Your task to perform on an android device: Open wifi settings Image 0: 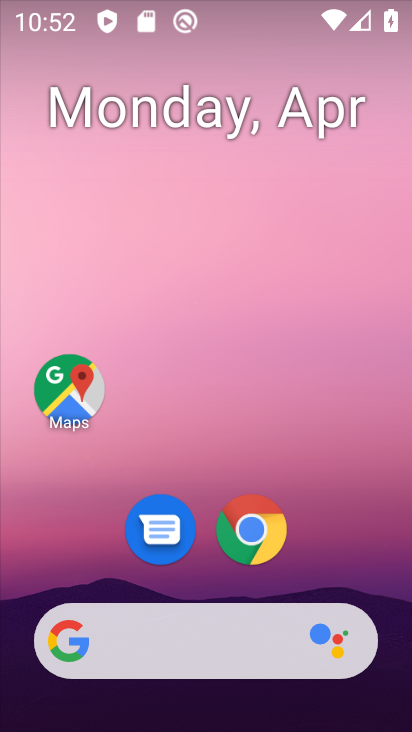
Step 0: press home button
Your task to perform on an android device: Open wifi settings Image 1: 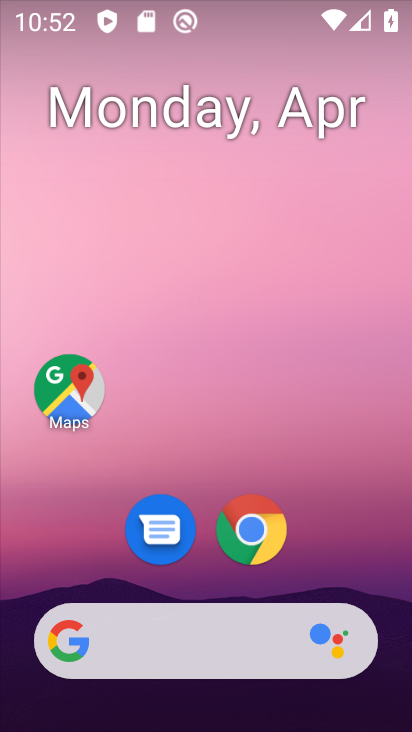
Step 1: drag from (345, 546) to (257, 29)
Your task to perform on an android device: Open wifi settings Image 2: 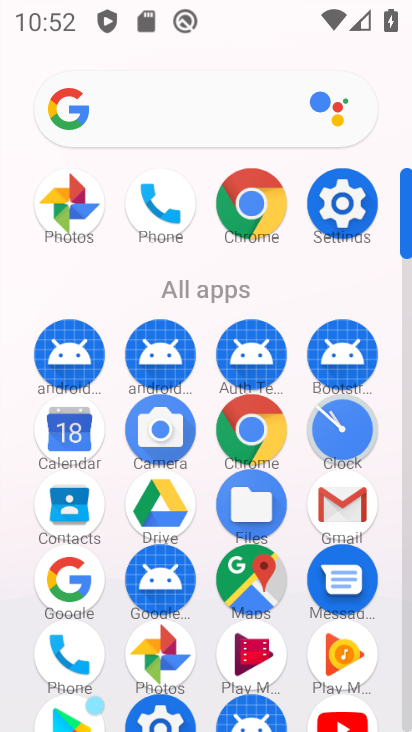
Step 2: click (322, 200)
Your task to perform on an android device: Open wifi settings Image 3: 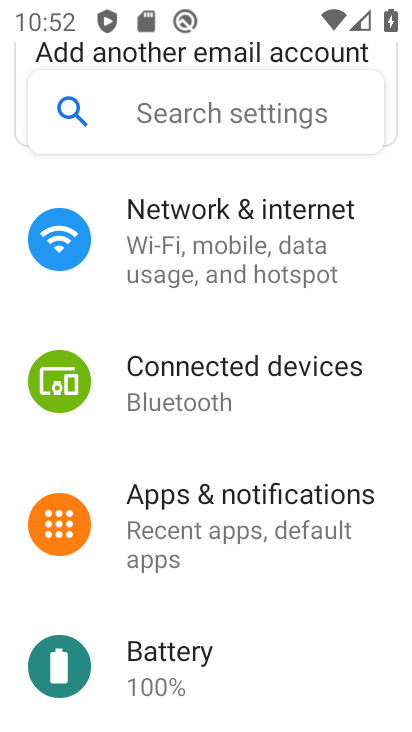
Step 3: click (280, 269)
Your task to perform on an android device: Open wifi settings Image 4: 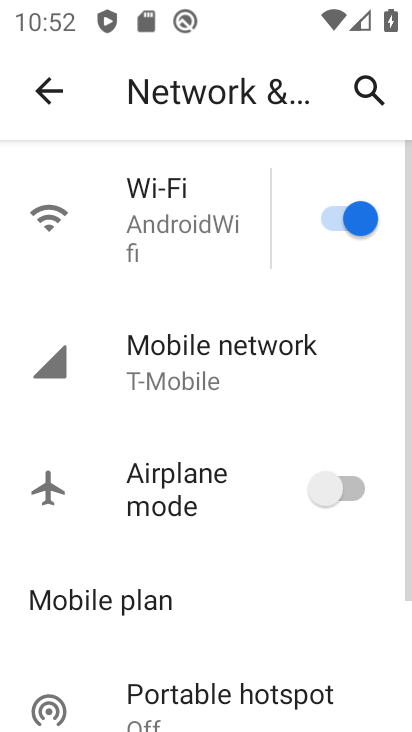
Step 4: click (149, 219)
Your task to perform on an android device: Open wifi settings Image 5: 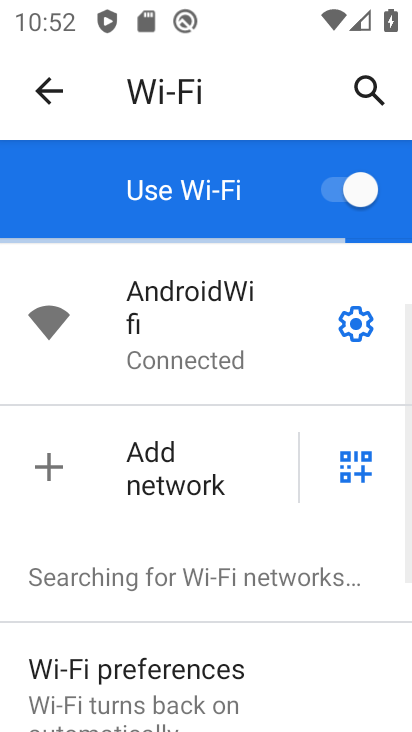
Step 5: task complete